Your task to perform on an android device: Go to Reddit.com Image 0: 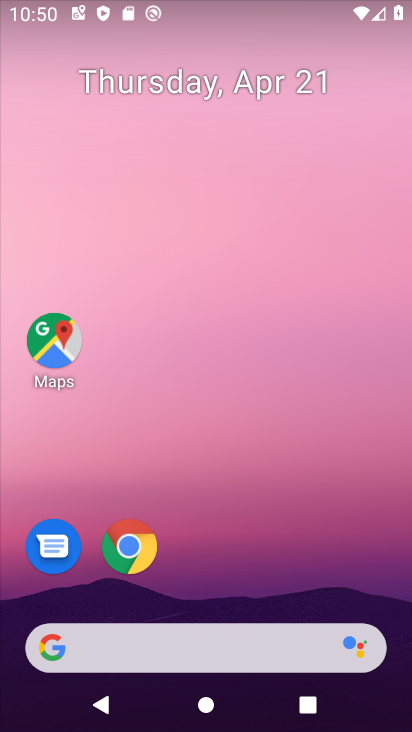
Step 0: drag from (287, 549) to (223, 44)
Your task to perform on an android device: Go to Reddit.com Image 1: 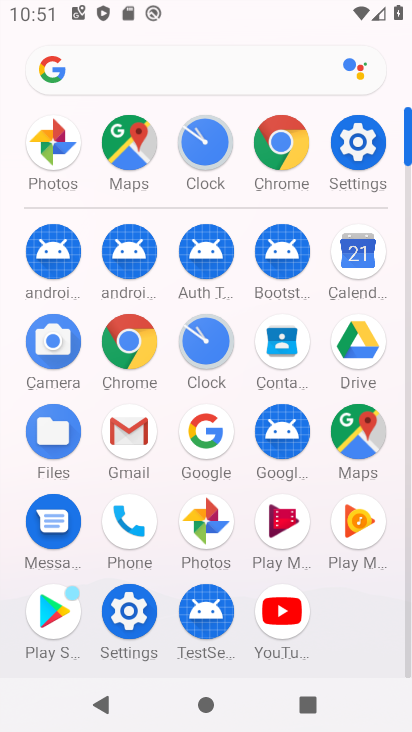
Step 1: click (129, 340)
Your task to perform on an android device: Go to Reddit.com Image 2: 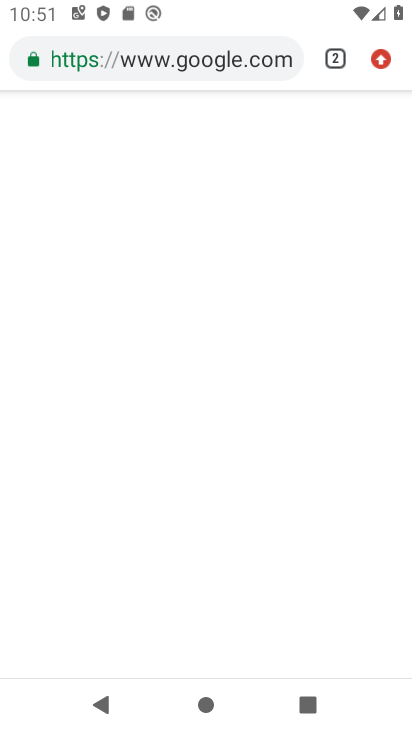
Step 2: click (178, 61)
Your task to perform on an android device: Go to Reddit.com Image 3: 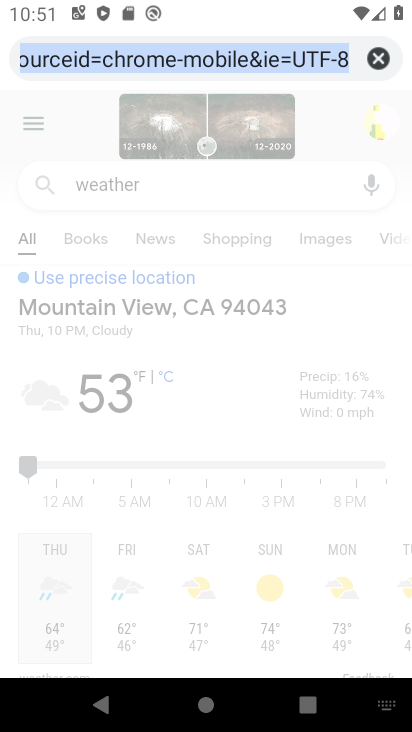
Step 3: type "reddit.com"
Your task to perform on an android device: Go to Reddit.com Image 4: 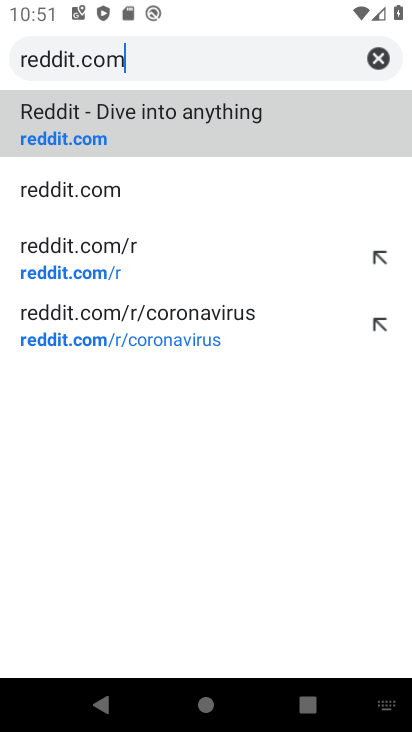
Step 4: click (155, 121)
Your task to perform on an android device: Go to Reddit.com Image 5: 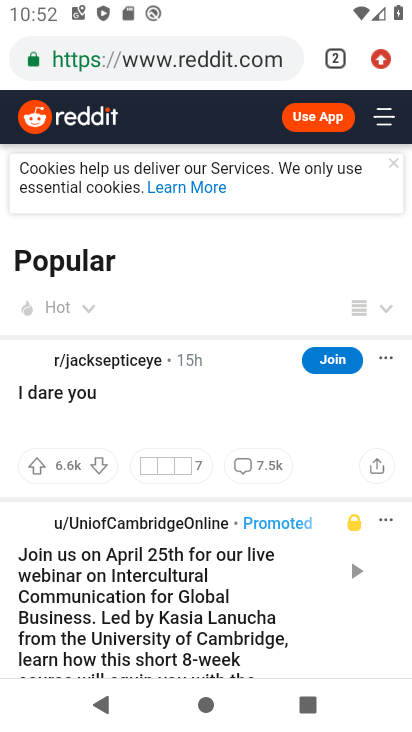
Step 5: task complete